Your task to perform on an android device: turn on wifi Image 0: 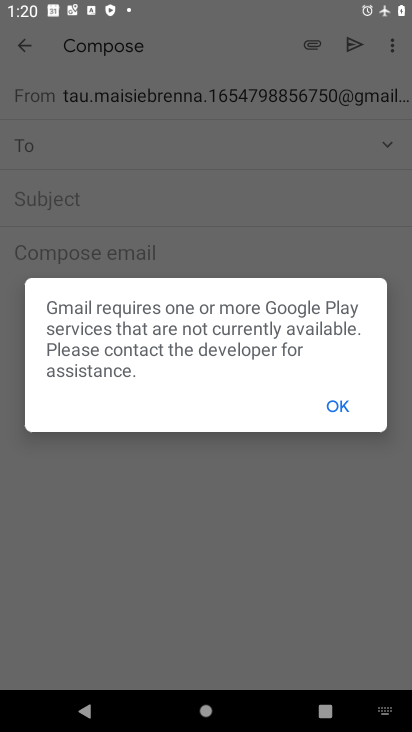
Step 0: press home button
Your task to perform on an android device: turn on wifi Image 1: 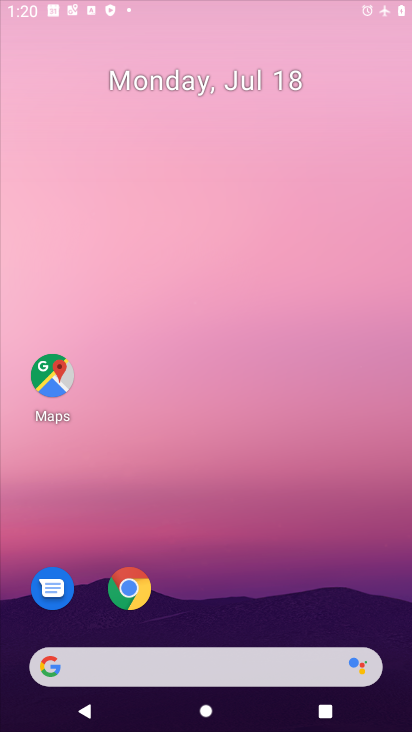
Step 1: drag from (167, 691) to (205, 292)
Your task to perform on an android device: turn on wifi Image 2: 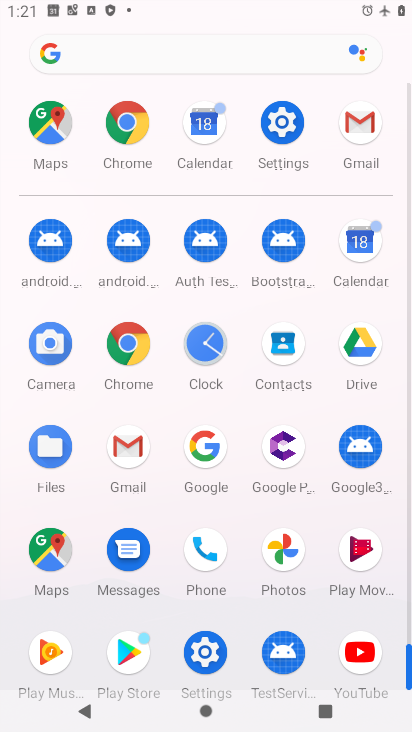
Step 2: click (275, 126)
Your task to perform on an android device: turn on wifi Image 3: 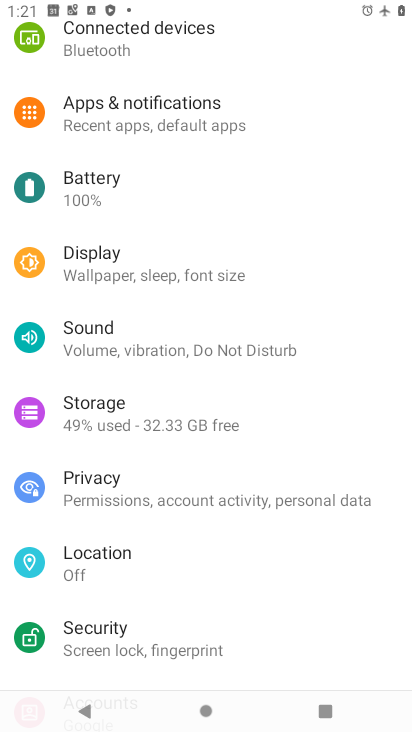
Step 3: drag from (254, 234) to (202, 641)
Your task to perform on an android device: turn on wifi Image 4: 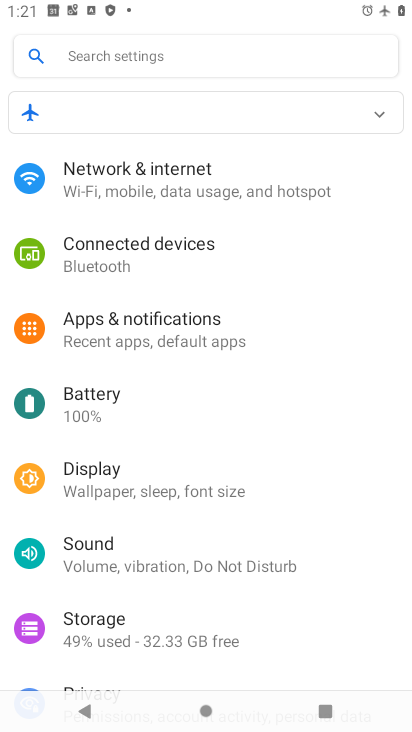
Step 4: click (180, 190)
Your task to perform on an android device: turn on wifi Image 5: 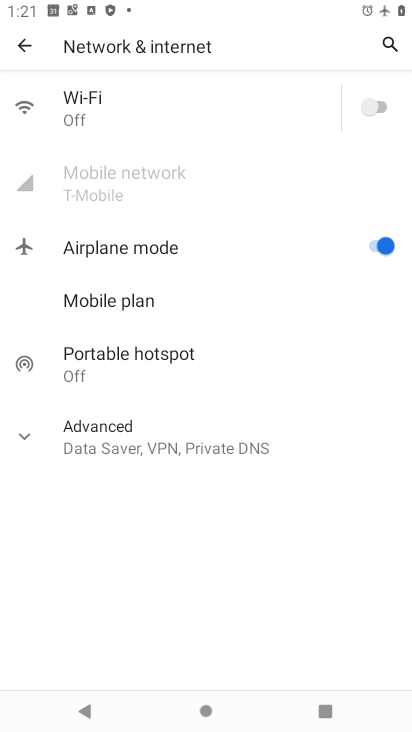
Step 5: click (375, 114)
Your task to perform on an android device: turn on wifi Image 6: 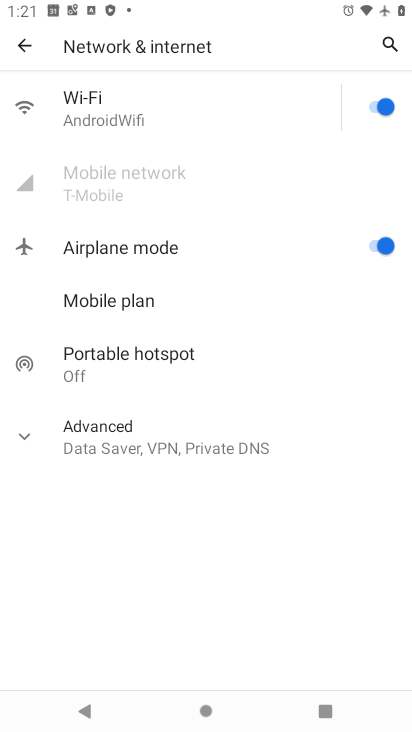
Step 6: task complete